Your task to perform on an android device: open wifi settings Image 0: 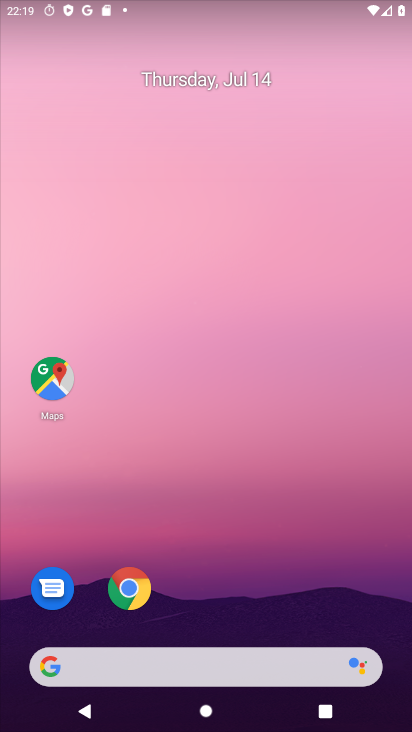
Step 0: click (407, 613)
Your task to perform on an android device: open wifi settings Image 1: 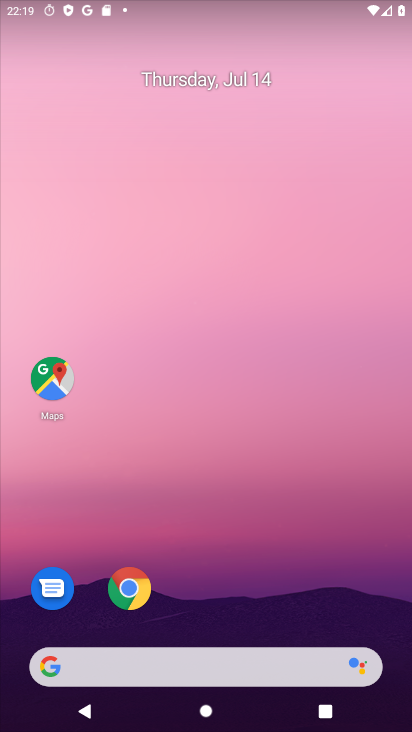
Step 1: drag from (252, 610) to (287, 71)
Your task to perform on an android device: open wifi settings Image 2: 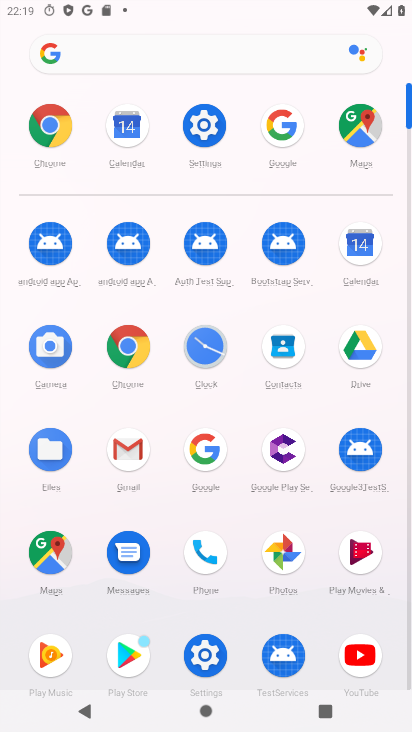
Step 2: click (201, 126)
Your task to perform on an android device: open wifi settings Image 3: 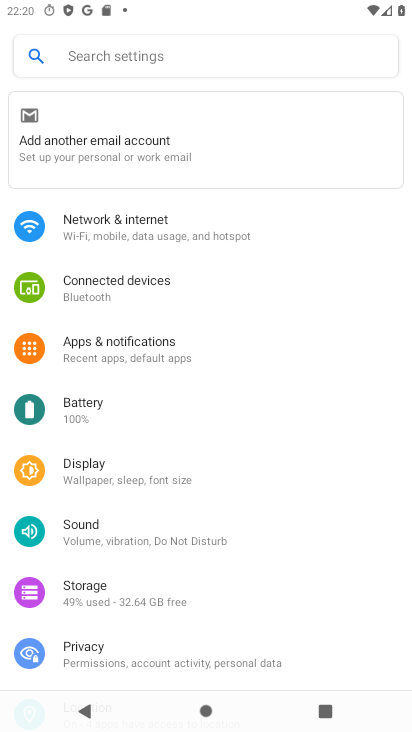
Step 3: click (144, 239)
Your task to perform on an android device: open wifi settings Image 4: 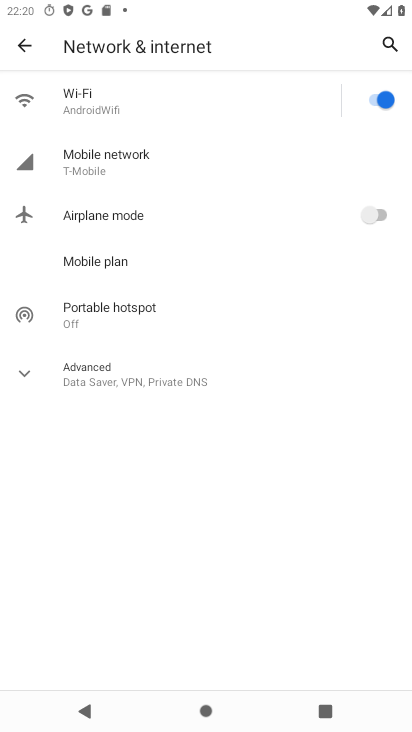
Step 4: click (164, 100)
Your task to perform on an android device: open wifi settings Image 5: 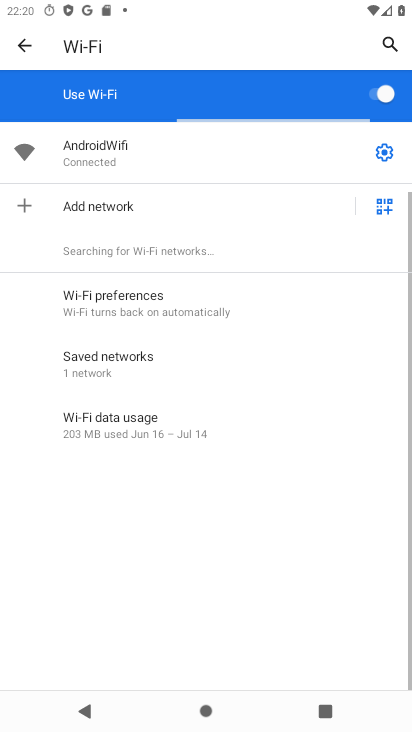
Step 5: click (184, 140)
Your task to perform on an android device: open wifi settings Image 6: 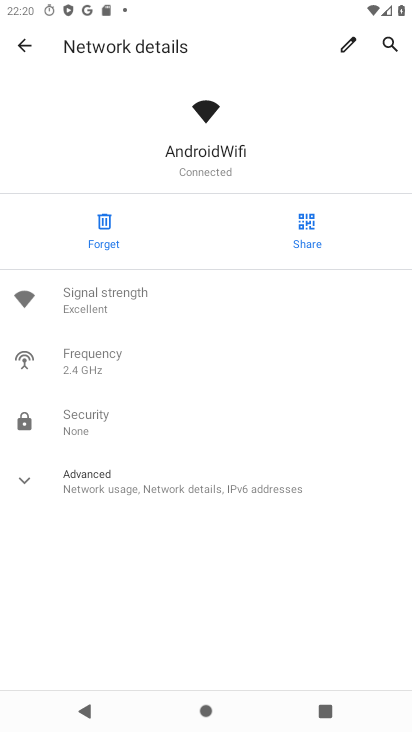
Step 6: task complete